Your task to perform on an android device: Go to location settings Image 0: 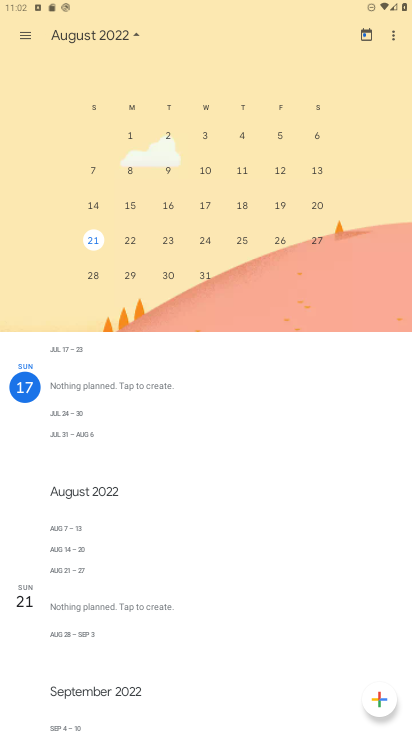
Step 0: press home button
Your task to perform on an android device: Go to location settings Image 1: 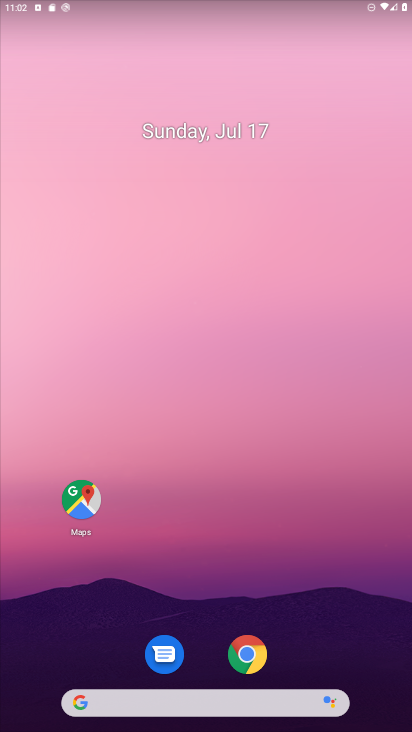
Step 1: drag from (201, 598) to (203, 61)
Your task to perform on an android device: Go to location settings Image 2: 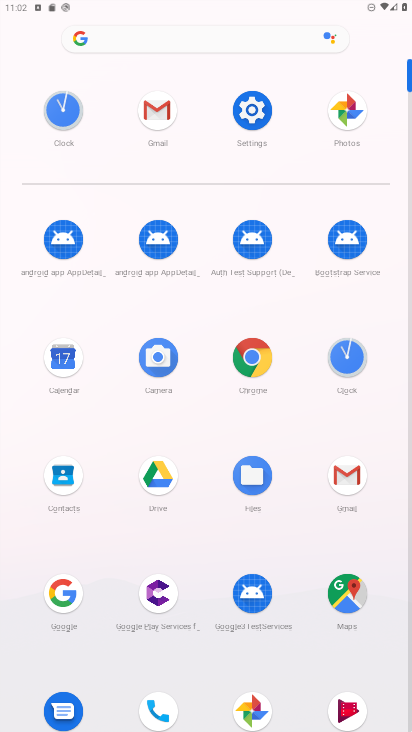
Step 2: click (261, 115)
Your task to perform on an android device: Go to location settings Image 3: 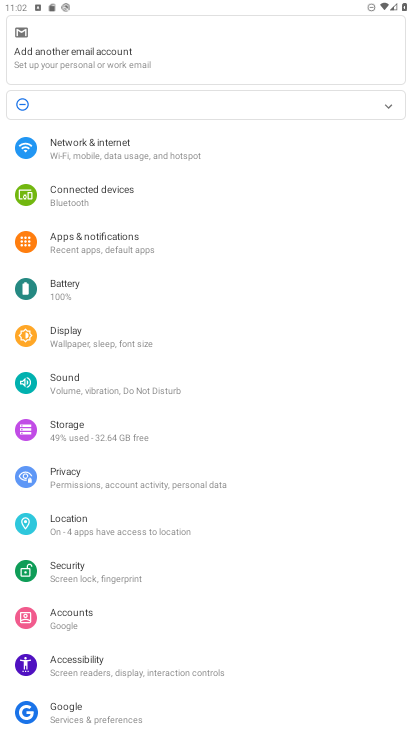
Step 3: click (127, 524)
Your task to perform on an android device: Go to location settings Image 4: 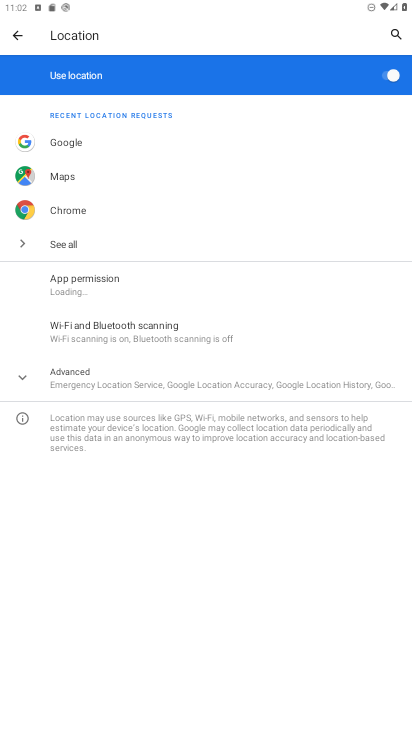
Step 4: task complete